Your task to perform on an android device: refresh tabs in the chrome app Image 0: 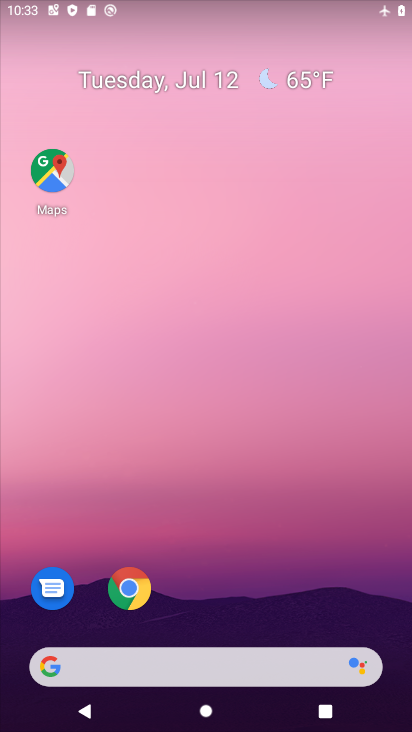
Step 0: click (117, 597)
Your task to perform on an android device: refresh tabs in the chrome app Image 1: 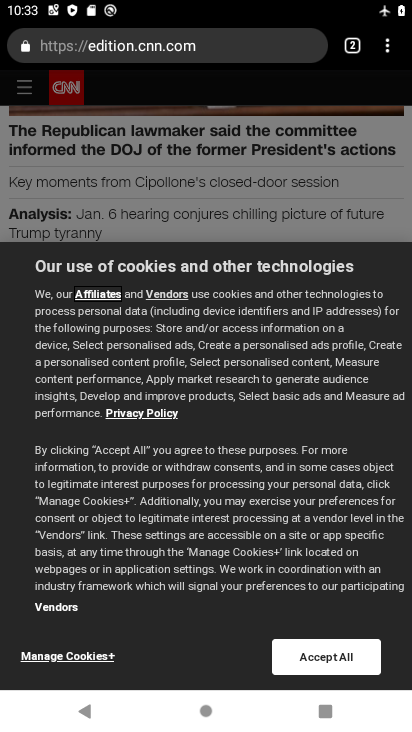
Step 1: click (374, 44)
Your task to perform on an android device: refresh tabs in the chrome app Image 2: 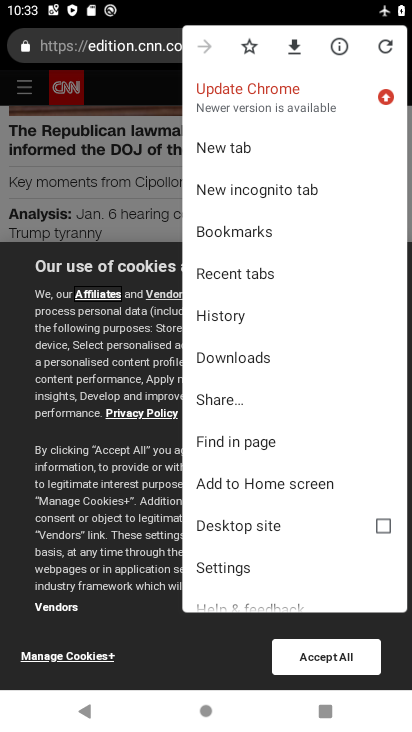
Step 2: click (376, 44)
Your task to perform on an android device: refresh tabs in the chrome app Image 3: 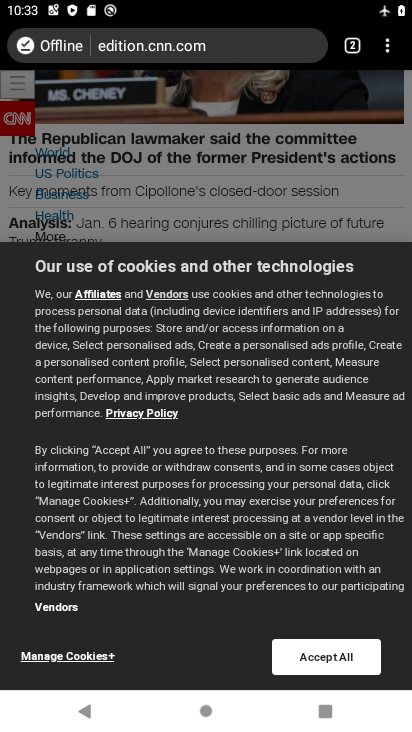
Step 3: drag from (278, 9) to (314, 639)
Your task to perform on an android device: refresh tabs in the chrome app Image 4: 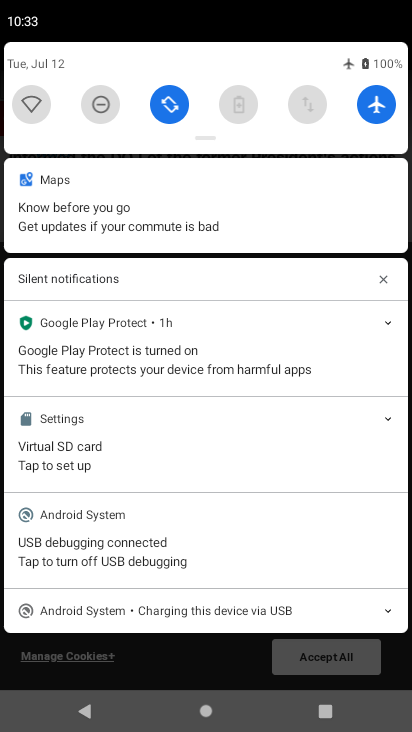
Step 4: click (375, 93)
Your task to perform on an android device: refresh tabs in the chrome app Image 5: 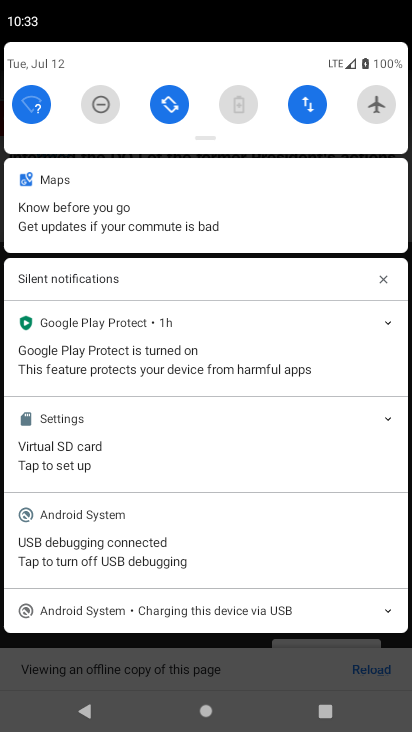
Step 5: click (188, 650)
Your task to perform on an android device: refresh tabs in the chrome app Image 6: 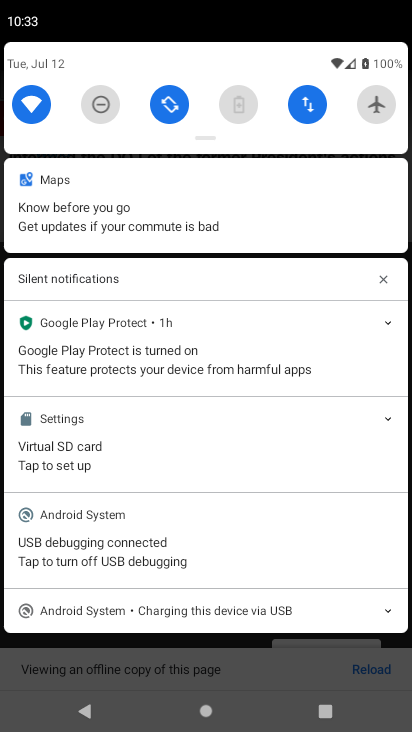
Step 6: task complete